Your task to perform on an android device: What is the news today? Image 0: 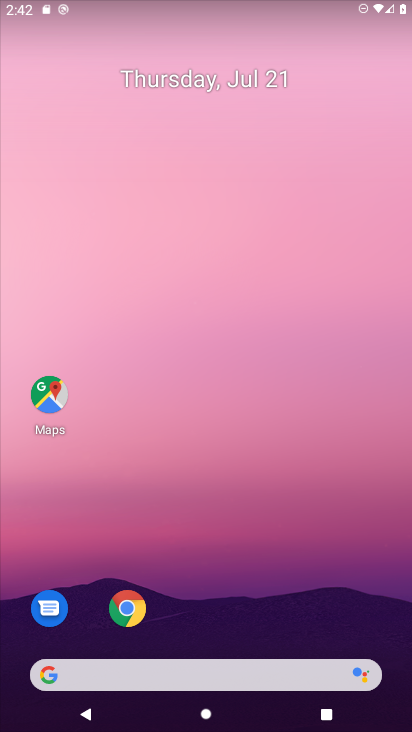
Step 0: drag from (263, 603) to (265, 50)
Your task to perform on an android device: What is the news today? Image 1: 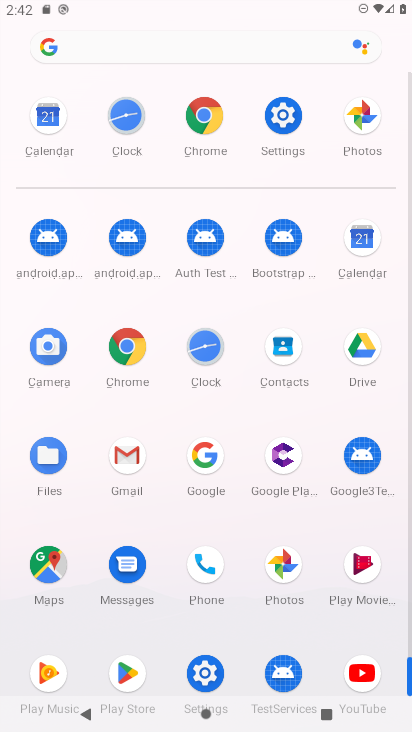
Step 1: click (221, 472)
Your task to perform on an android device: What is the news today? Image 2: 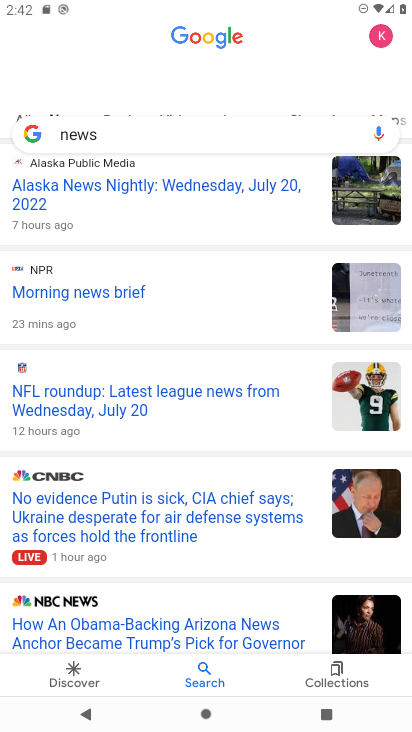
Step 2: task complete